Your task to perform on an android device: turn on the 24-hour format for clock Image 0: 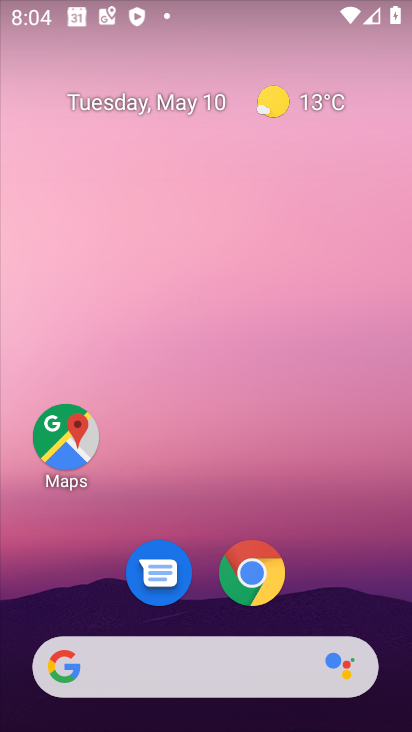
Step 0: drag from (370, 629) to (333, 3)
Your task to perform on an android device: turn on the 24-hour format for clock Image 1: 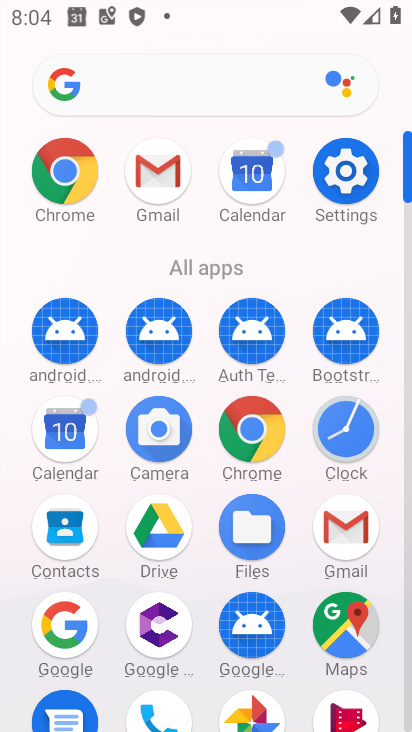
Step 1: click (343, 430)
Your task to perform on an android device: turn on the 24-hour format for clock Image 2: 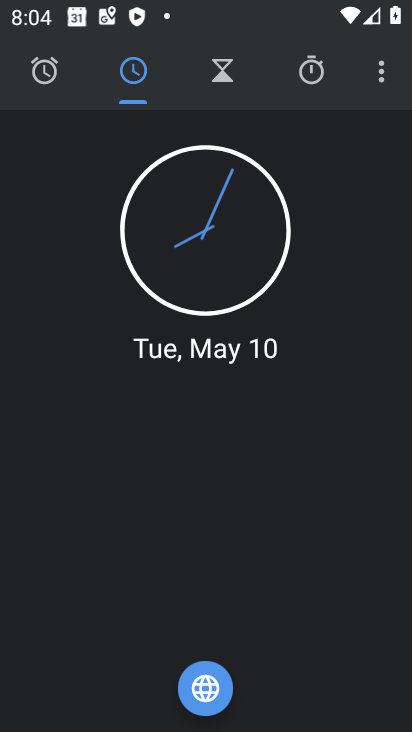
Step 2: click (381, 77)
Your task to perform on an android device: turn on the 24-hour format for clock Image 3: 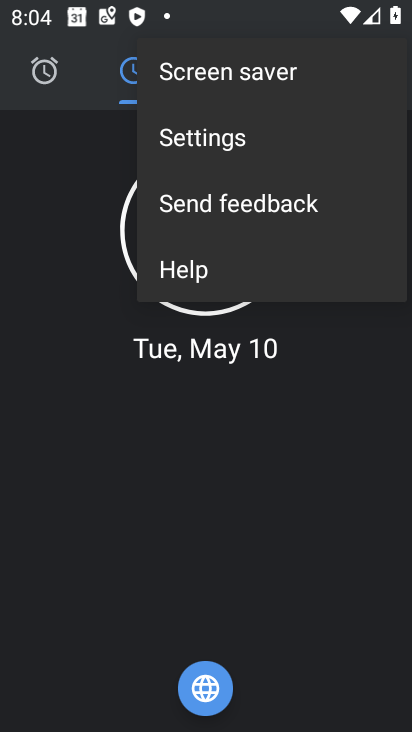
Step 3: click (240, 144)
Your task to perform on an android device: turn on the 24-hour format for clock Image 4: 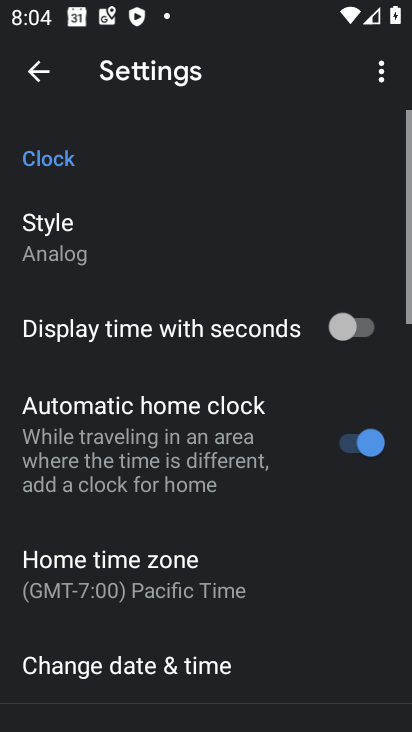
Step 4: drag from (228, 542) to (198, 180)
Your task to perform on an android device: turn on the 24-hour format for clock Image 5: 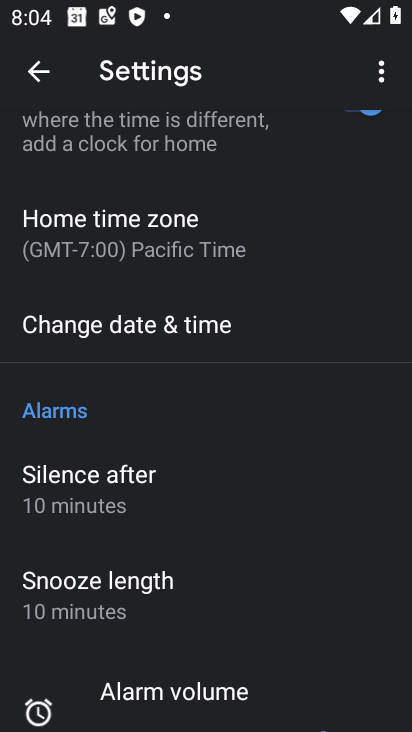
Step 5: click (157, 334)
Your task to perform on an android device: turn on the 24-hour format for clock Image 6: 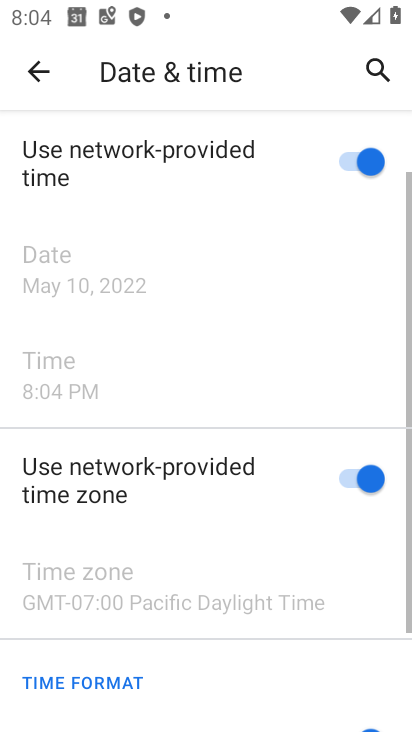
Step 6: drag from (211, 534) to (185, 218)
Your task to perform on an android device: turn on the 24-hour format for clock Image 7: 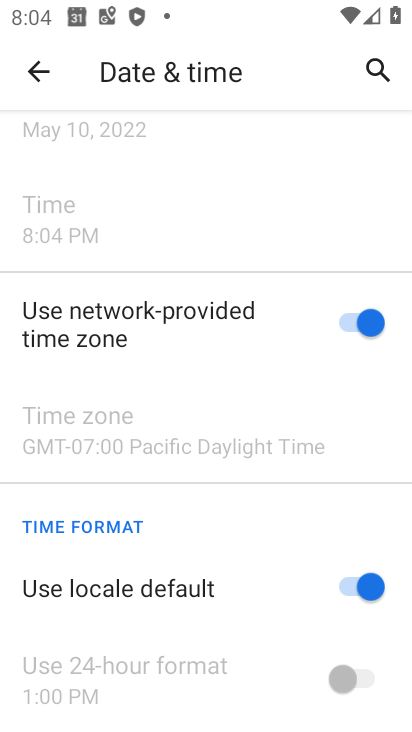
Step 7: drag from (178, 533) to (180, 310)
Your task to perform on an android device: turn on the 24-hour format for clock Image 8: 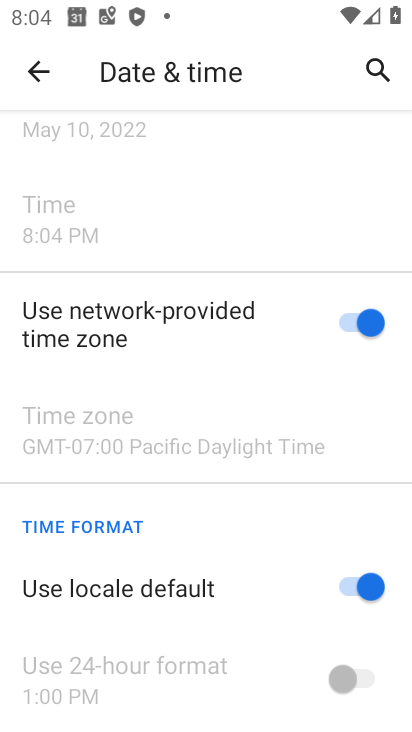
Step 8: click (358, 584)
Your task to perform on an android device: turn on the 24-hour format for clock Image 9: 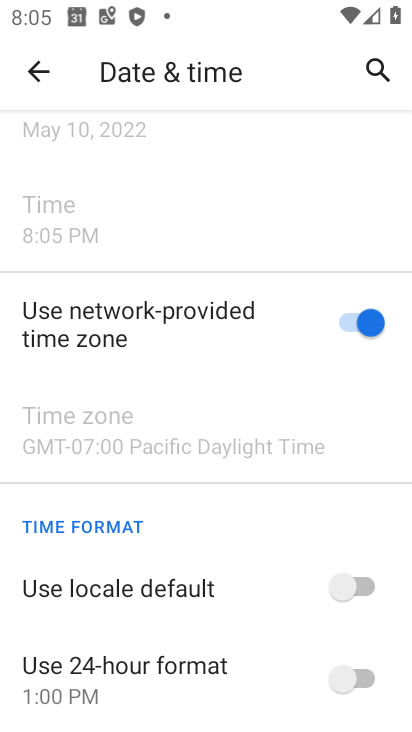
Step 9: click (355, 684)
Your task to perform on an android device: turn on the 24-hour format for clock Image 10: 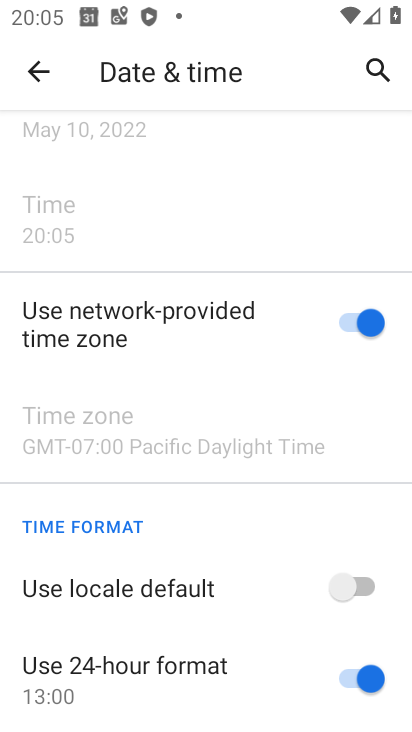
Step 10: task complete